Your task to perform on an android device: open a new tab in the chrome app Image 0: 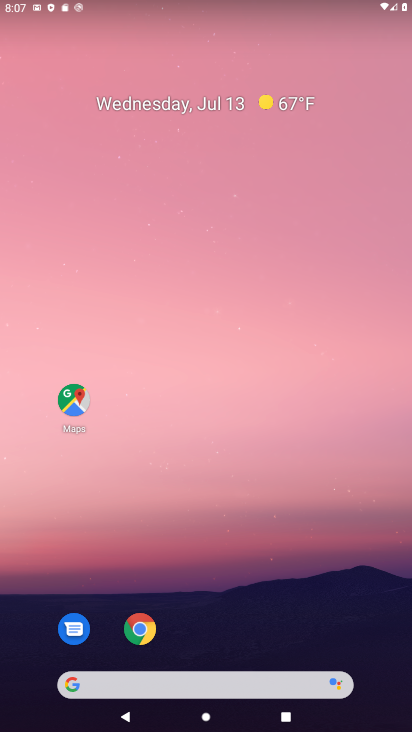
Step 0: click (141, 633)
Your task to perform on an android device: open a new tab in the chrome app Image 1: 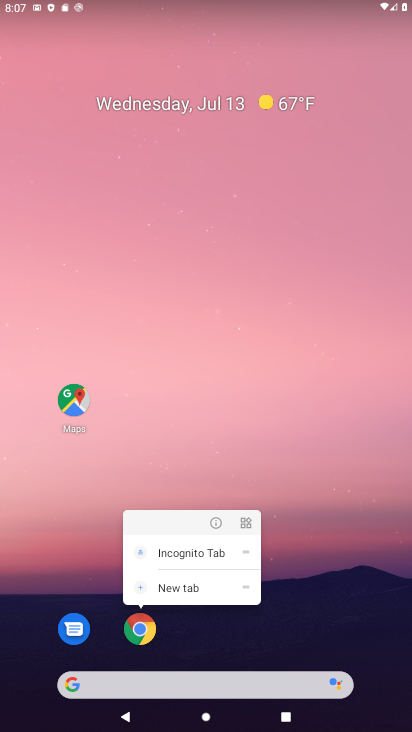
Step 1: click (139, 614)
Your task to perform on an android device: open a new tab in the chrome app Image 2: 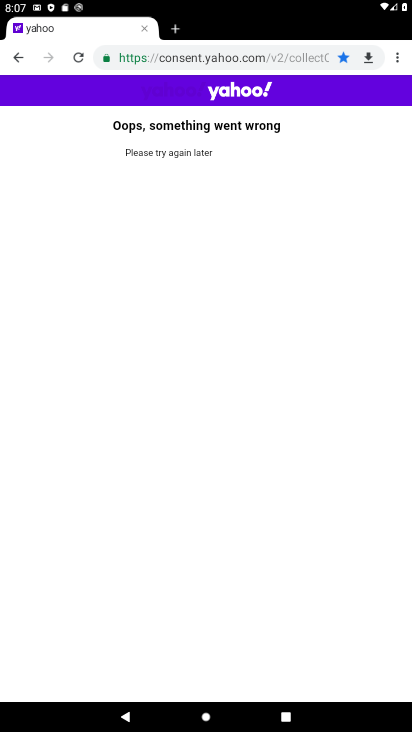
Step 2: click (396, 58)
Your task to perform on an android device: open a new tab in the chrome app Image 3: 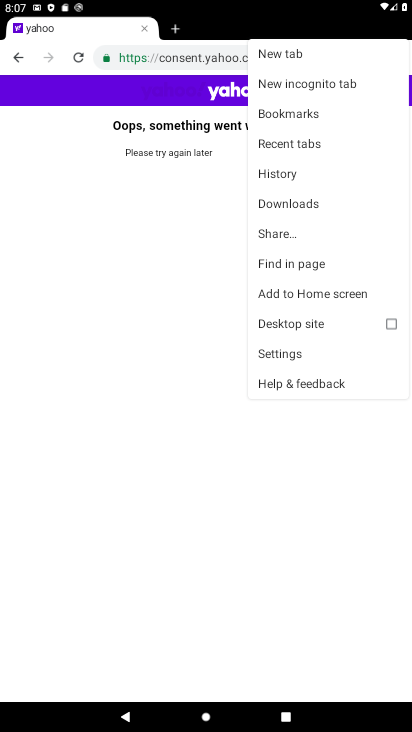
Step 3: click (283, 49)
Your task to perform on an android device: open a new tab in the chrome app Image 4: 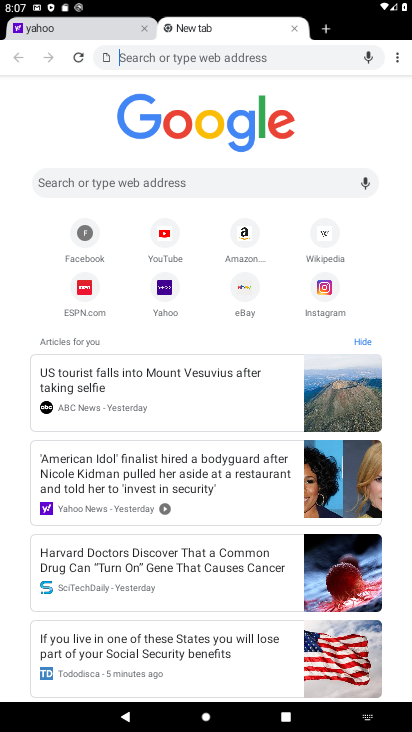
Step 4: task complete